Your task to perform on an android device: Go to accessibility settings Image 0: 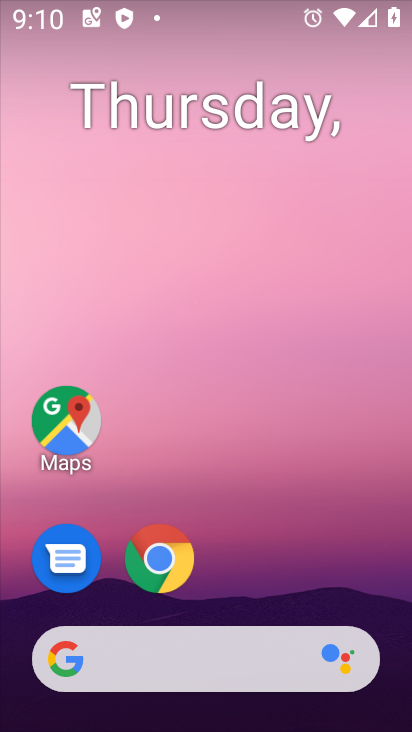
Step 0: drag from (328, 587) to (347, 91)
Your task to perform on an android device: Go to accessibility settings Image 1: 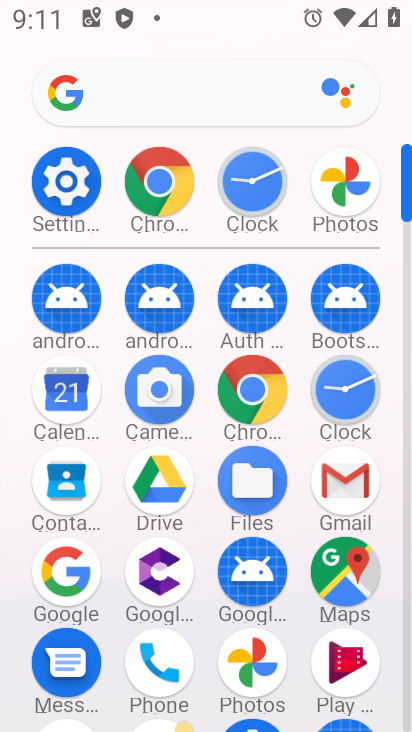
Step 1: click (68, 190)
Your task to perform on an android device: Go to accessibility settings Image 2: 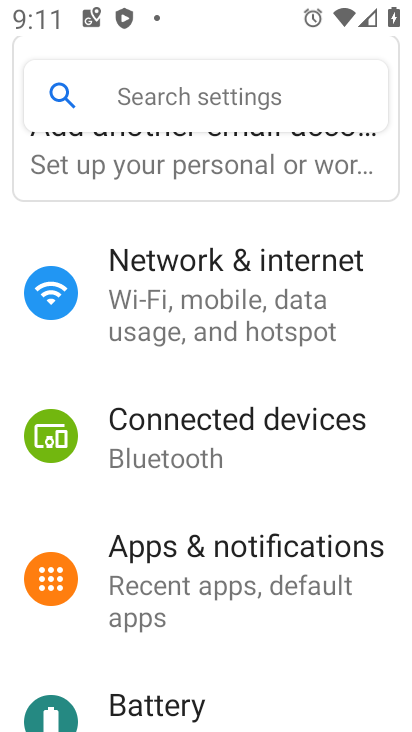
Step 2: drag from (380, 283) to (378, 481)
Your task to perform on an android device: Go to accessibility settings Image 3: 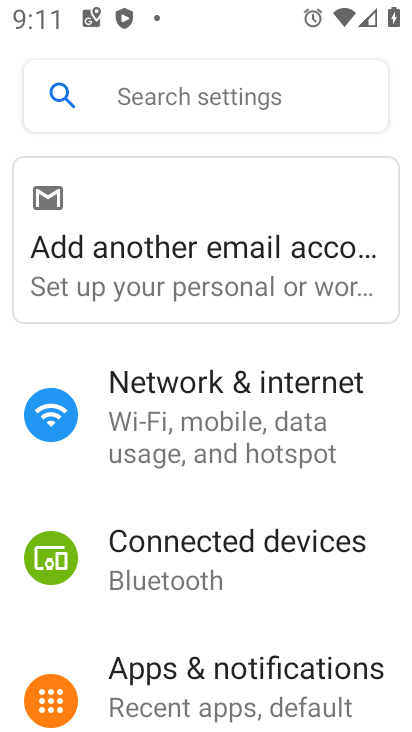
Step 3: drag from (386, 596) to (379, 494)
Your task to perform on an android device: Go to accessibility settings Image 4: 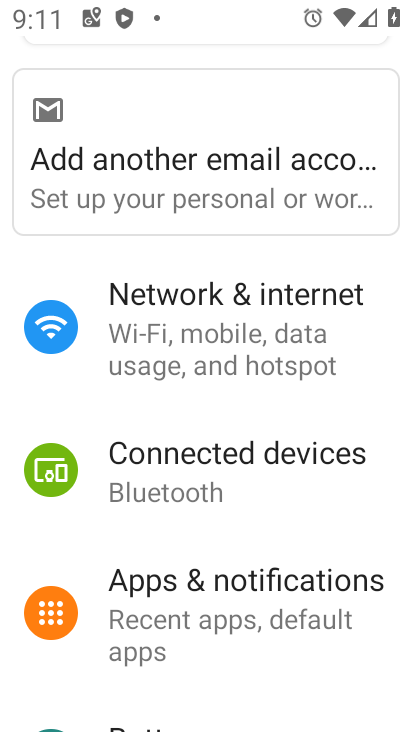
Step 4: drag from (380, 640) to (369, 489)
Your task to perform on an android device: Go to accessibility settings Image 5: 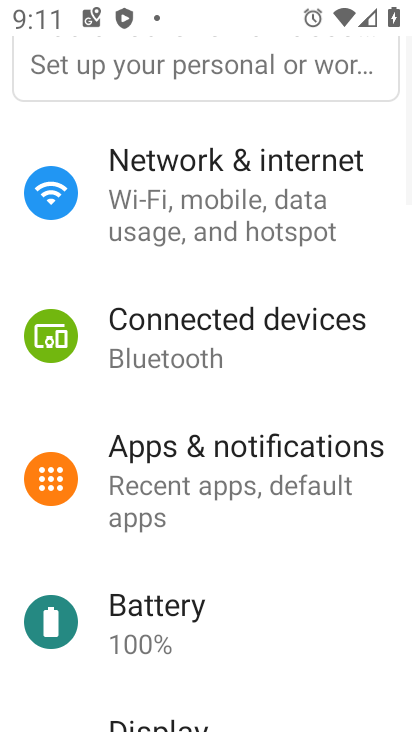
Step 5: drag from (366, 606) to (350, 488)
Your task to perform on an android device: Go to accessibility settings Image 6: 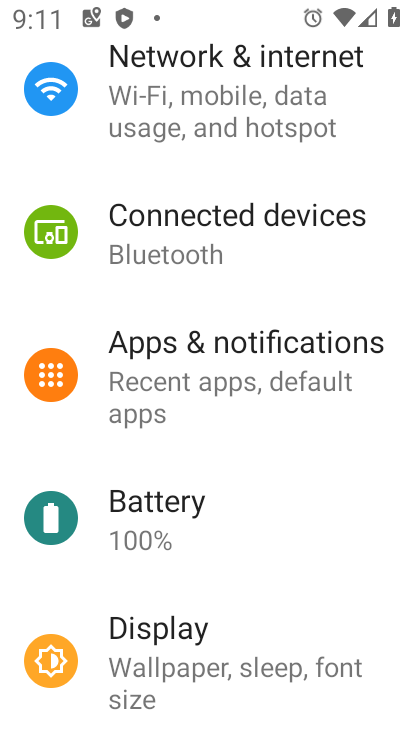
Step 6: drag from (329, 597) to (332, 429)
Your task to perform on an android device: Go to accessibility settings Image 7: 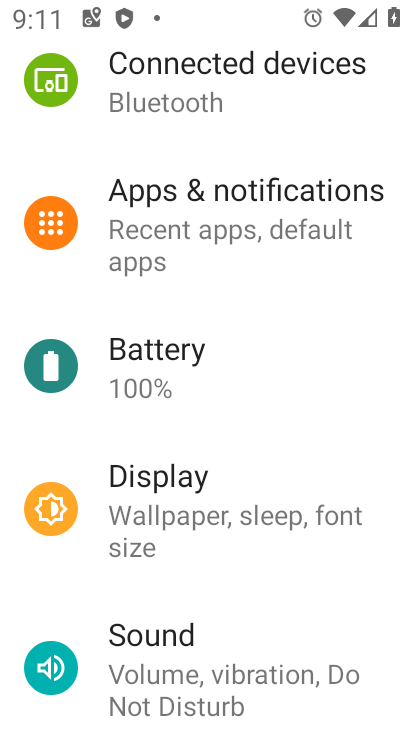
Step 7: drag from (310, 575) to (329, 466)
Your task to perform on an android device: Go to accessibility settings Image 8: 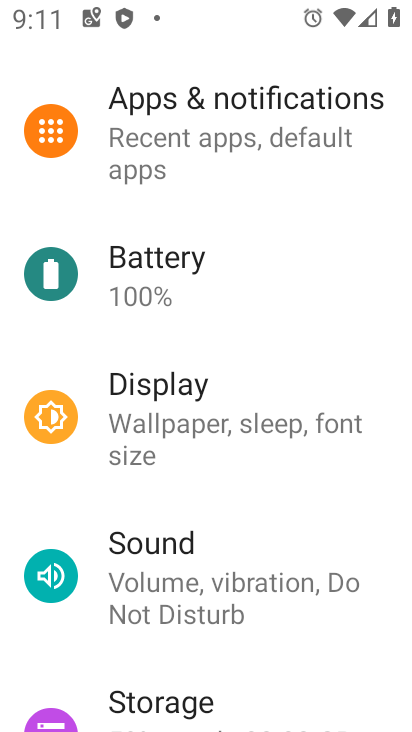
Step 8: drag from (330, 642) to (333, 511)
Your task to perform on an android device: Go to accessibility settings Image 9: 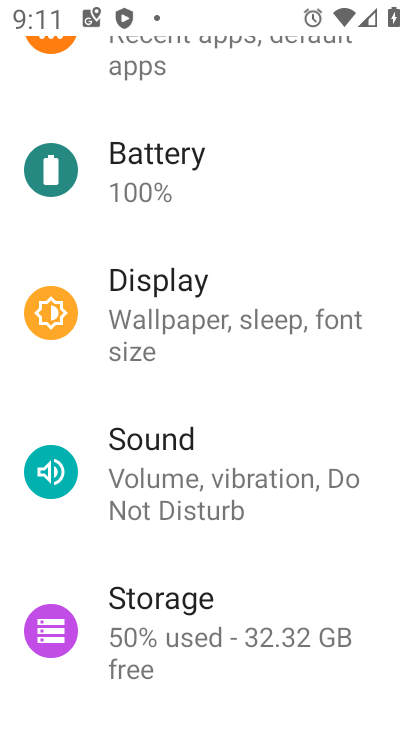
Step 9: drag from (336, 676) to (344, 526)
Your task to perform on an android device: Go to accessibility settings Image 10: 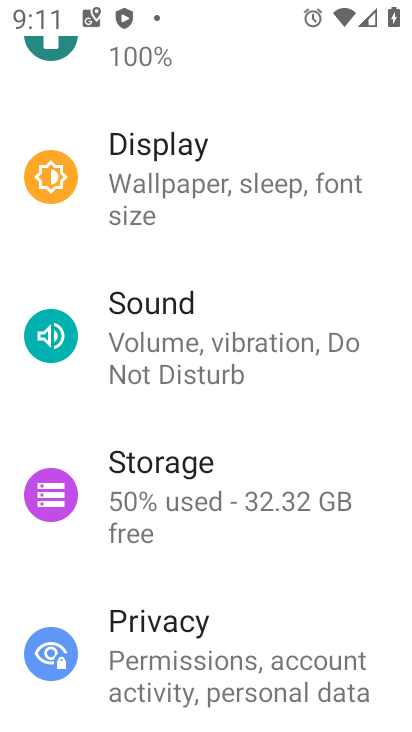
Step 10: drag from (344, 637) to (351, 509)
Your task to perform on an android device: Go to accessibility settings Image 11: 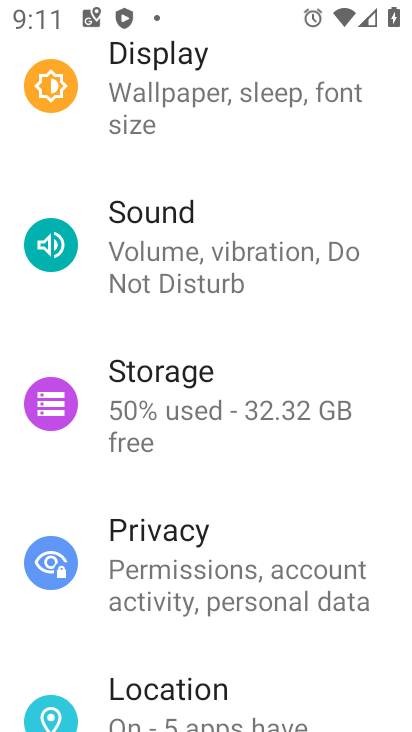
Step 11: drag from (349, 663) to (342, 545)
Your task to perform on an android device: Go to accessibility settings Image 12: 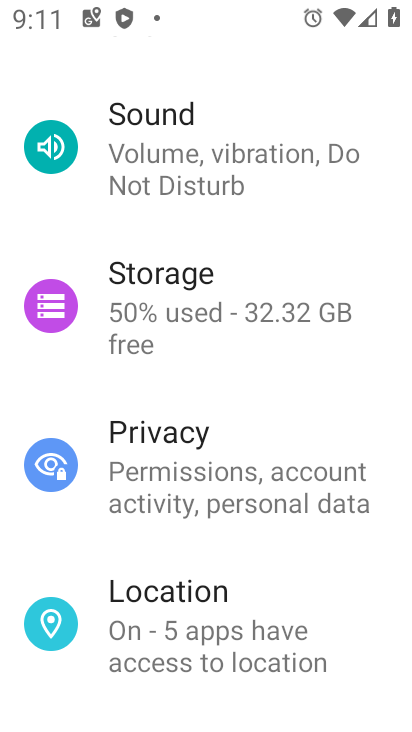
Step 12: drag from (341, 694) to (360, 508)
Your task to perform on an android device: Go to accessibility settings Image 13: 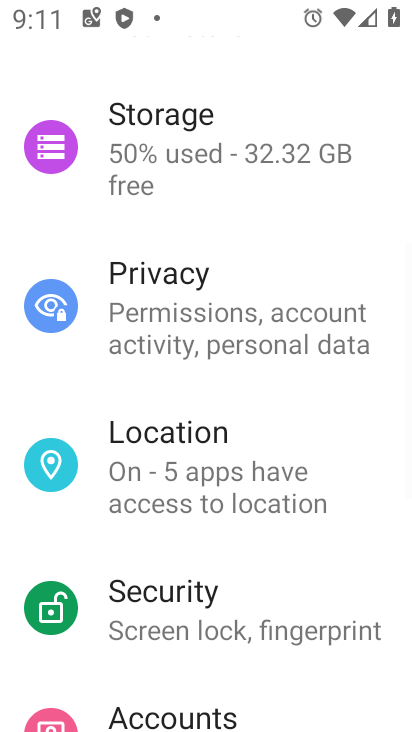
Step 13: drag from (338, 665) to (347, 517)
Your task to perform on an android device: Go to accessibility settings Image 14: 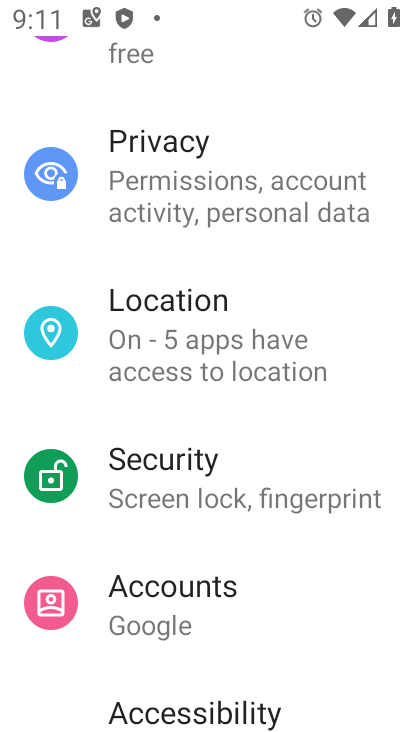
Step 14: drag from (334, 619) to (333, 470)
Your task to perform on an android device: Go to accessibility settings Image 15: 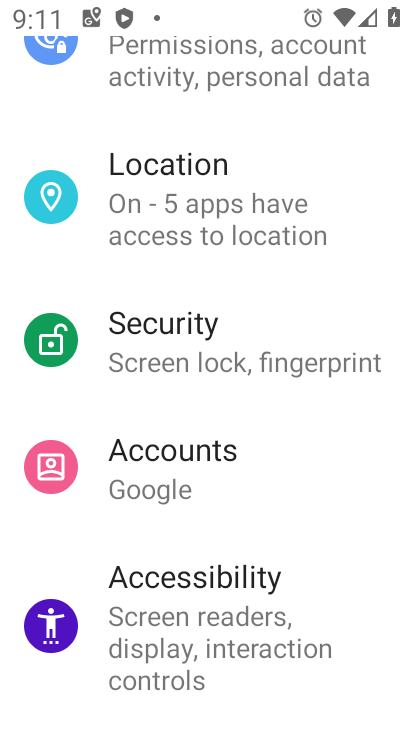
Step 15: drag from (357, 664) to (342, 542)
Your task to perform on an android device: Go to accessibility settings Image 16: 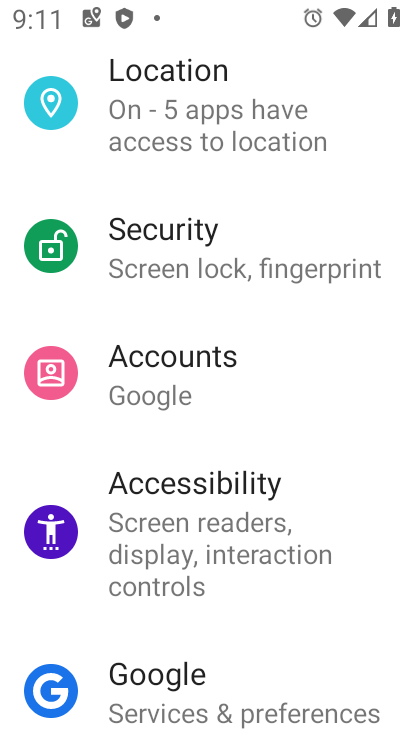
Step 16: drag from (336, 644) to (336, 487)
Your task to perform on an android device: Go to accessibility settings Image 17: 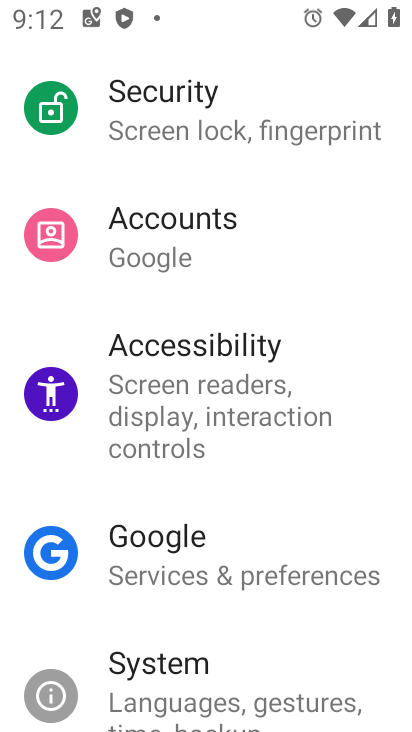
Step 17: drag from (318, 620) to (324, 493)
Your task to perform on an android device: Go to accessibility settings Image 18: 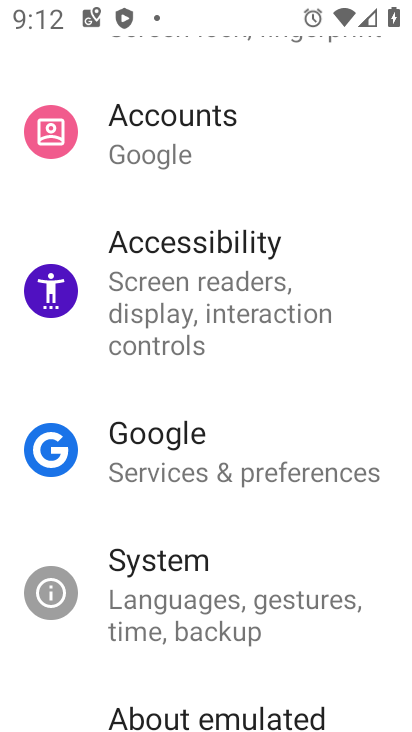
Step 18: click (301, 308)
Your task to perform on an android device: Go to accessibility settings Image 19: 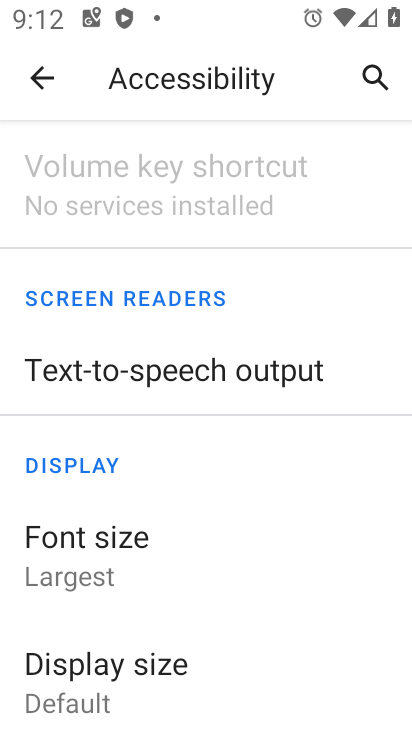
Step 19: task complete